Your task to perform on an android device: Open eBay Image 0: 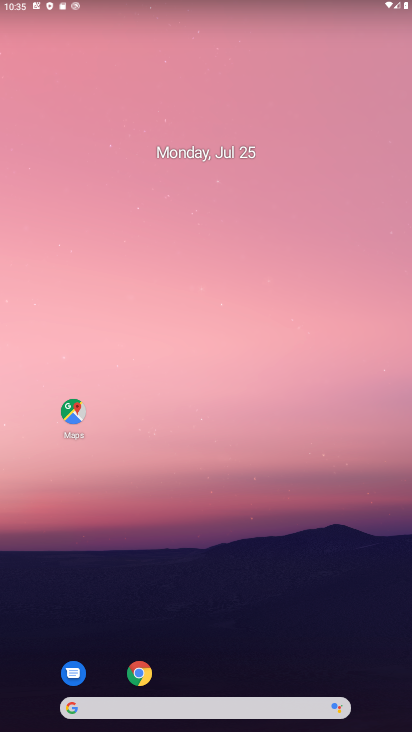
Step 0: press home button
Your task to perform on an android device: Open eBay Image 1: 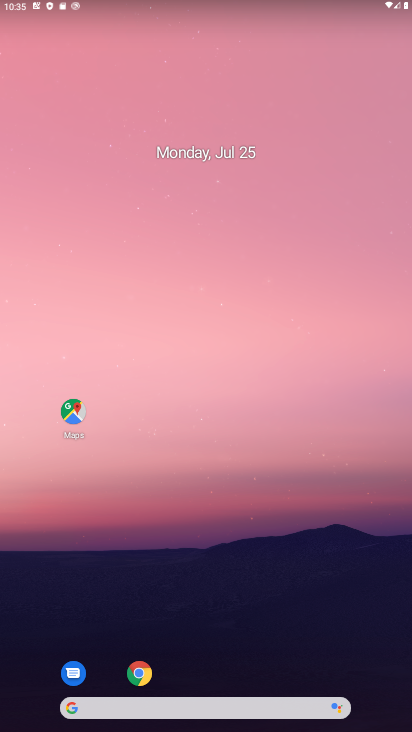
Step 1: click (138, 670)
Your task to perform on an android device: Open eBay Image 2: 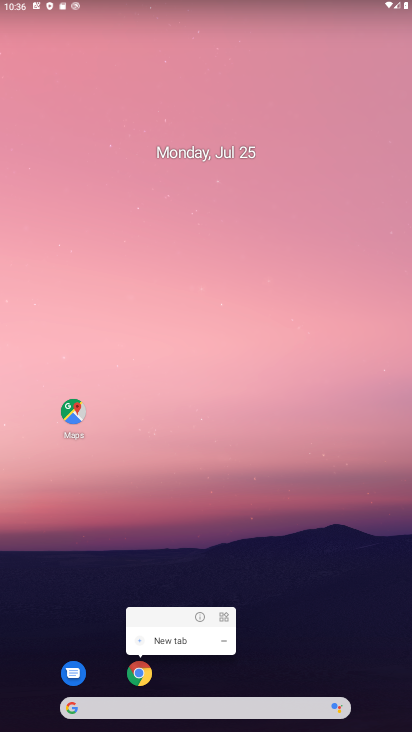
Step 2: click (140, 670)
Your task to perform on an android device: Open eBay Image 3: 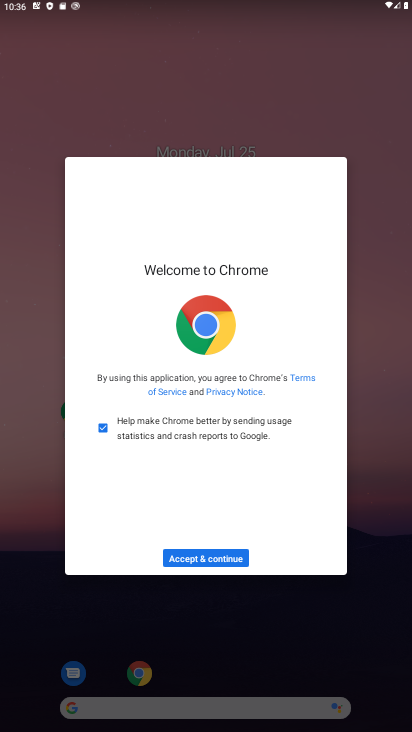
Step 3: click (202, 551)
Your task to perform on an android device: Open eBay Image 4: 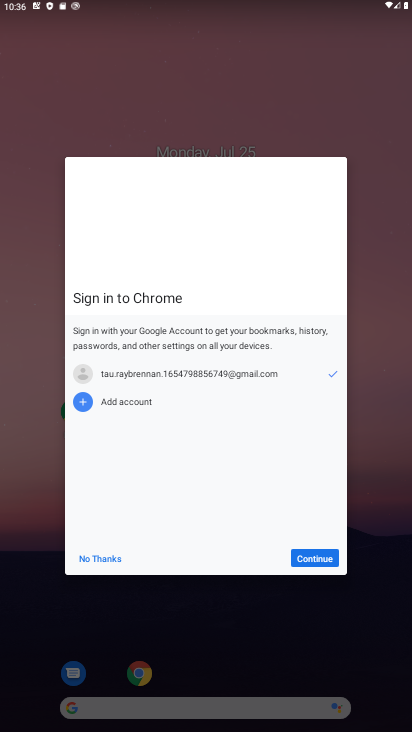
Step 4: click (309, 555)
Your task to perform on an android device: Open eBay Image 5: 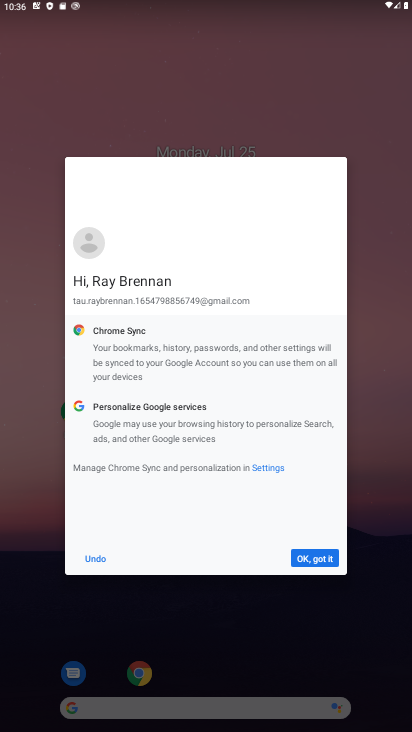
Step 5: click (312, 559)
Your task to perform on an android device: Open eBay Image 6: 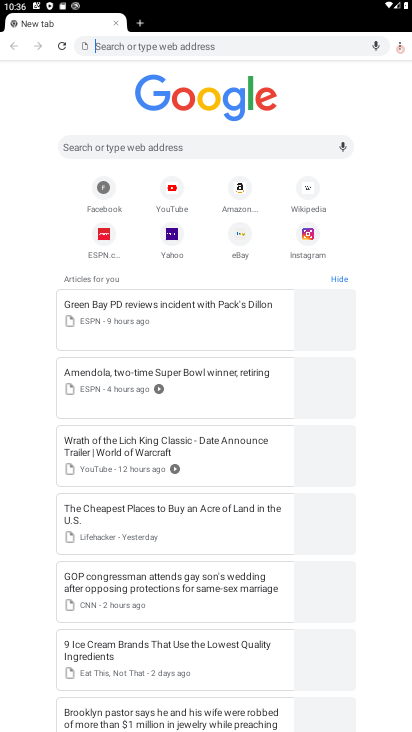
Step 6: click (239, 229)
Your task to perform on an android device: Open eBay Image 7: 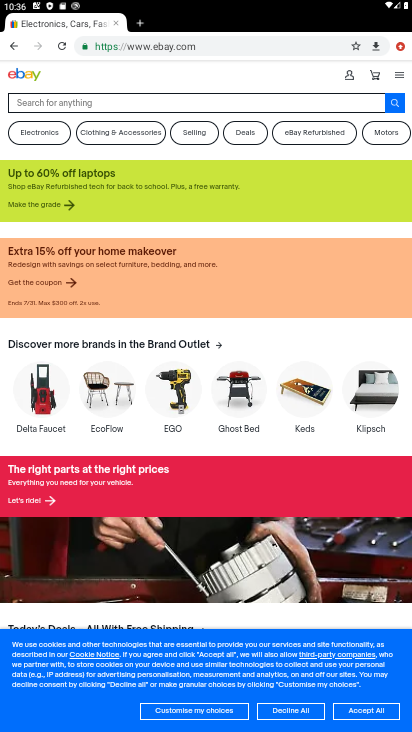
Step 7: click (363, 704)
Your task to perform on an android device: Open eBay Image 8: 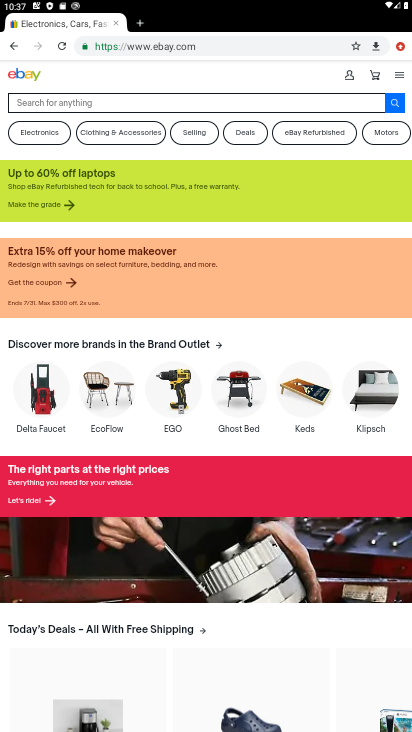
Step 8: task complete